Your task to perform on an android device: Go to battery settings Image 0: 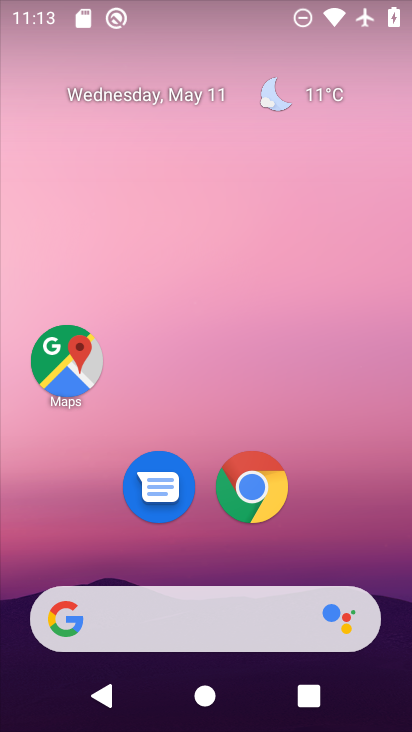
Step 0: drag from (338, 522) to (231, 15)
Your task to perform on an android device: Go to battery settings Image 1: 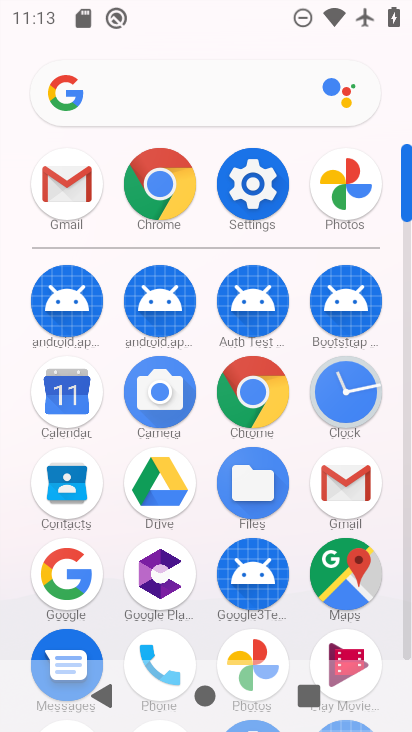
Step 1: drag from (6, 565) to (22, 192)
Your task to perform on an android device: Go to battery settings Image 2: 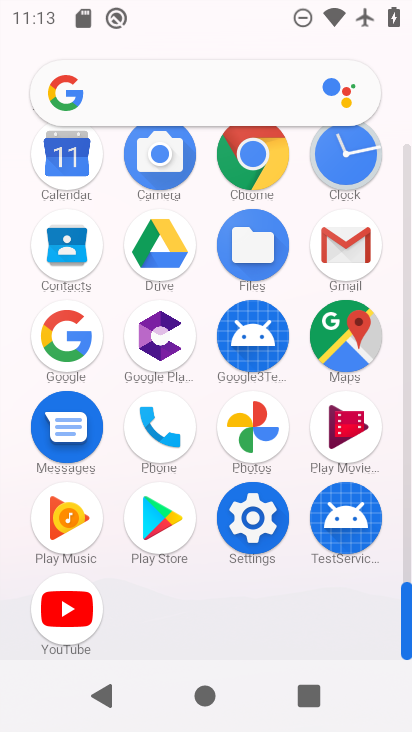
Step 2: click (253, 516)
Your task to perform on an android device: Go to battery settings Image 3: 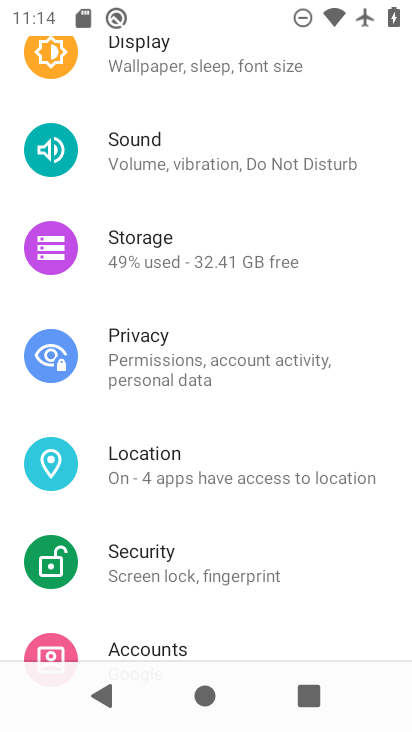
Step 3: drag from (292, 182) to (300, 574)
Your task to perform on an android device: Go to battery settings Image 4: 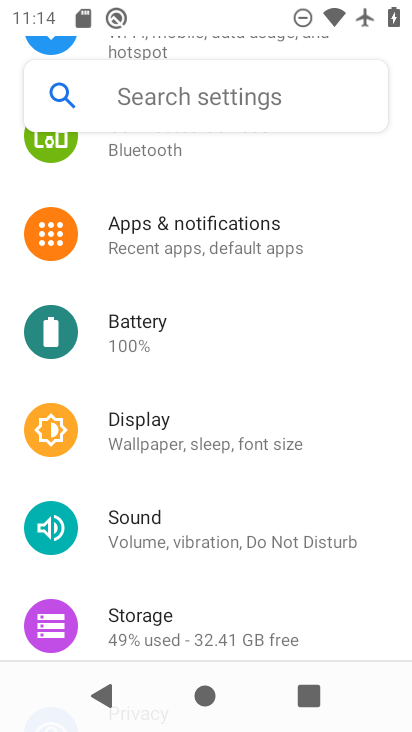
Step 4: drag from (269, 283) to (262, 573)
Your task to perform on an android device: Go to battery settings Image 5: 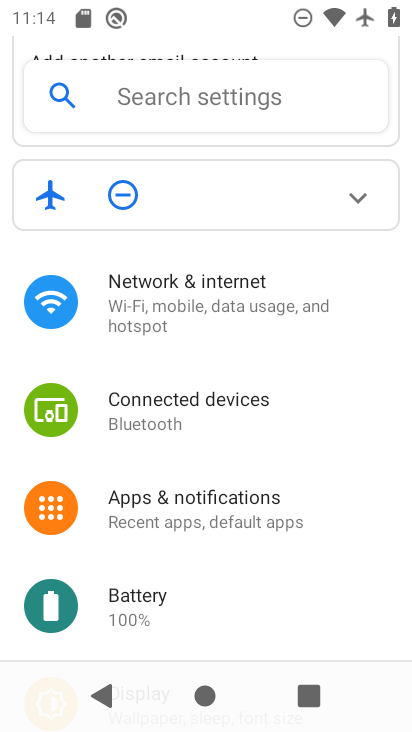
Step 5: drag from (262, 561) to (280, 299)
Your task to perform on an android device: Go to battery settings Image 6: 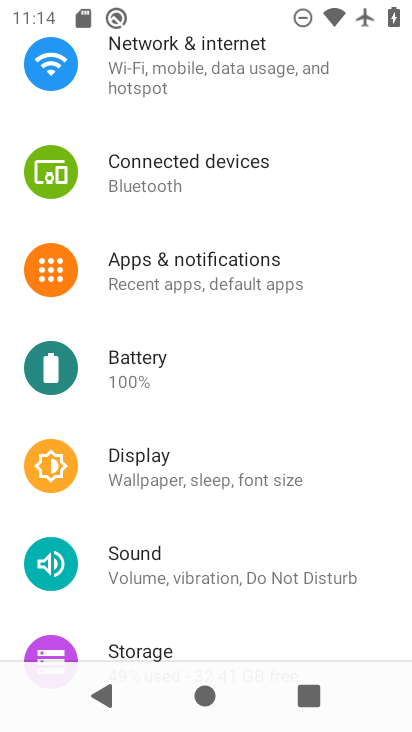
Step 6: drag from (288, 243) to (326, 542)
Your task to perform on an android device: Go to battery settings Image 7: 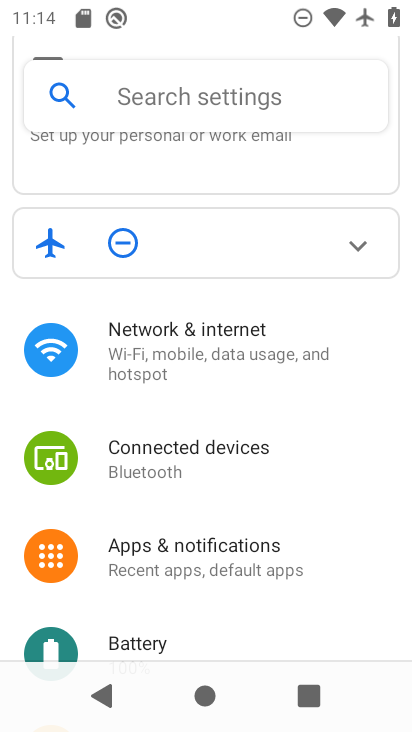
Step 7: drag from (303, 579) to (311, 332)
Your task to perform on an android device: Go to battery settings Image 8: 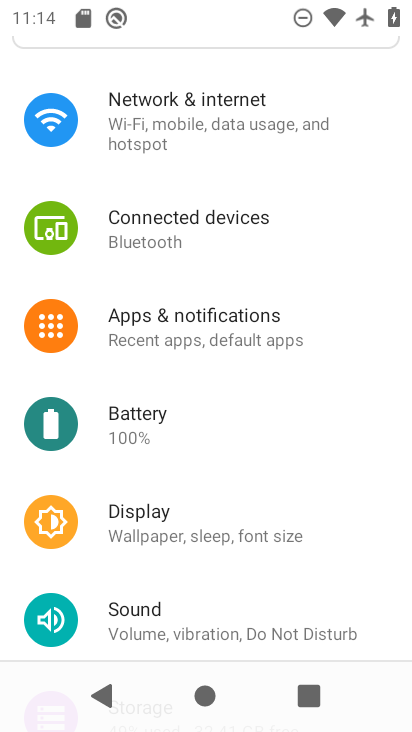
Step 8: click (163, 419)
Your task to perform on an android device: Go to battery settings Image 9: 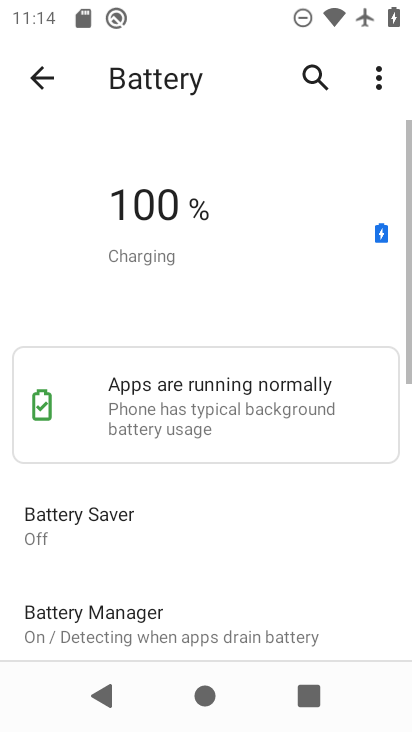
Step 9: task complete